Your task to perform on an android device: Go to Google Image 0: 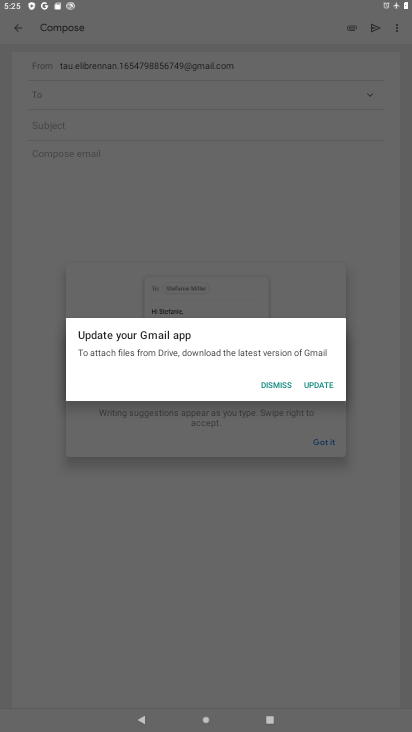
Step 0: press home button
Your task to perform on an android device: Go to Google Image 1: 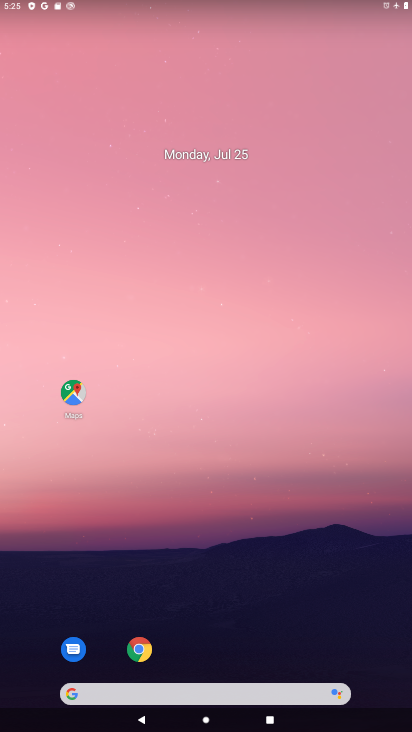
Step 1: drag from (220, 694) to (255, 89)
Your task to perform on an android device: Go to Google Image 2: 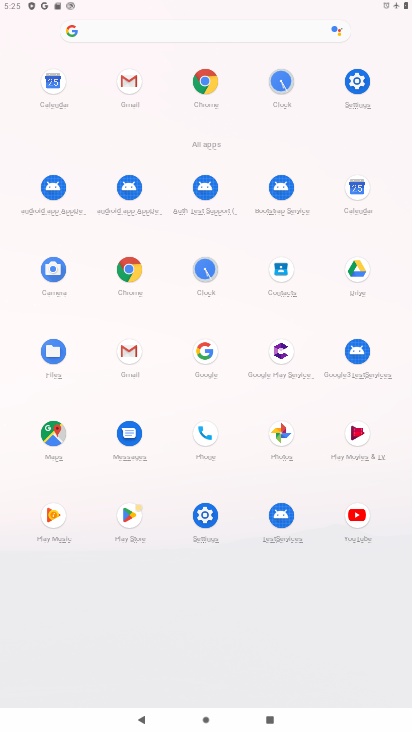
Step 2: click (127, 269)
Your task to perform on an android device: Go to Google Image 3: 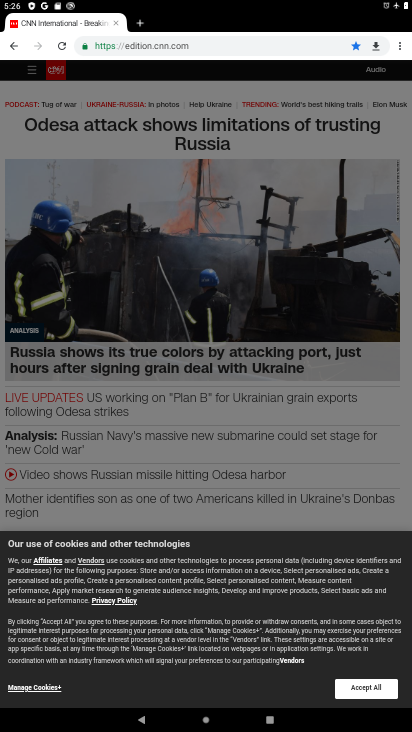
Step 3: click (396, 40)
Your task to perform on an android device: Go to Google Image 4: 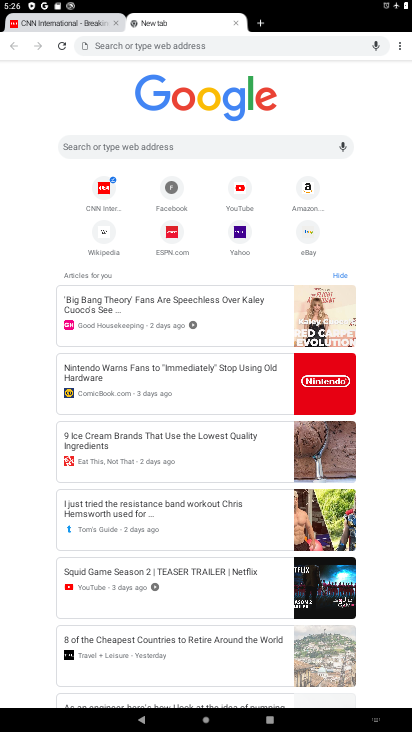
Step 4: click (401, 45)
Your task to perform on an android device: Go to Google Image 5: 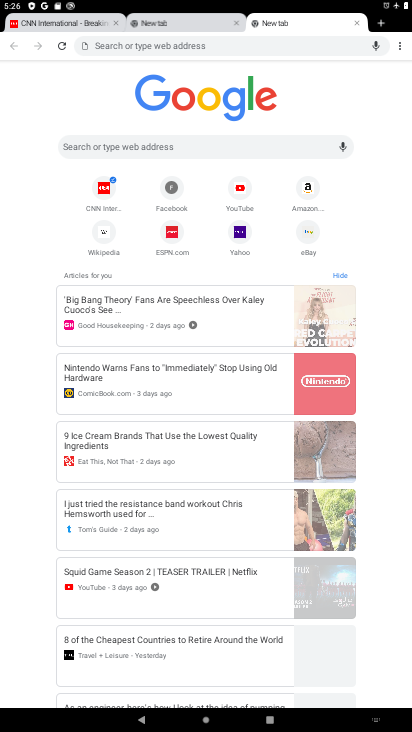
Step 5: task complete